Your task to perform on an android device: make emails show in primary in the gmail app Image 0: 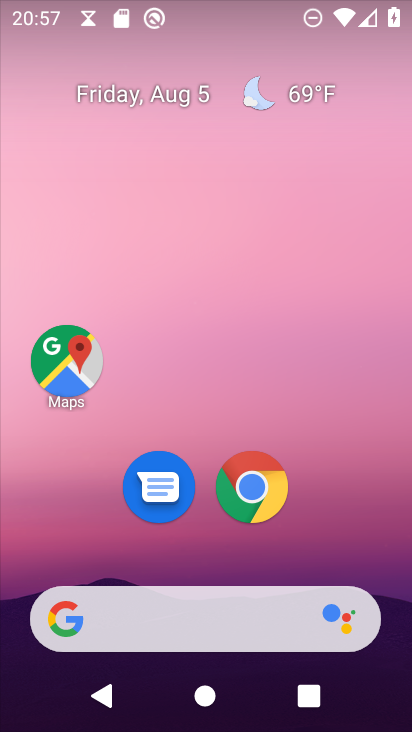
Step 0: drag from (232, 605) to (310, 117)
Your task to perform on an android device: make emails show in primary in the gmail app Image 1: 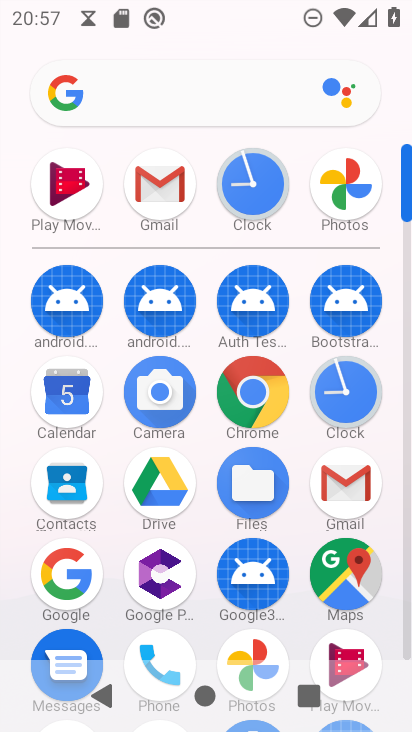
Step 1: click (156, 194)
Your task to perform on an android device: make emails show in primary in the gmail app Image 2: 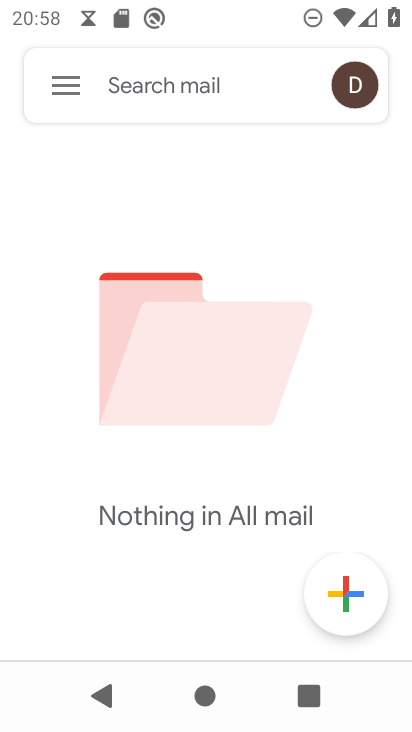
Step 2: click (63, 84)
Your task to perform on an android device: make emails show in primary in the gmail app Image 3: 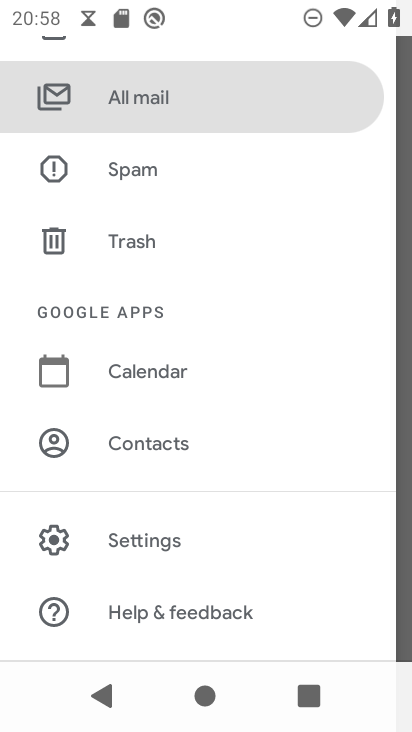
Step 3: click (150, 544)
Your task to perform on an android device: make emails show in primary in the gmail app Image 4: 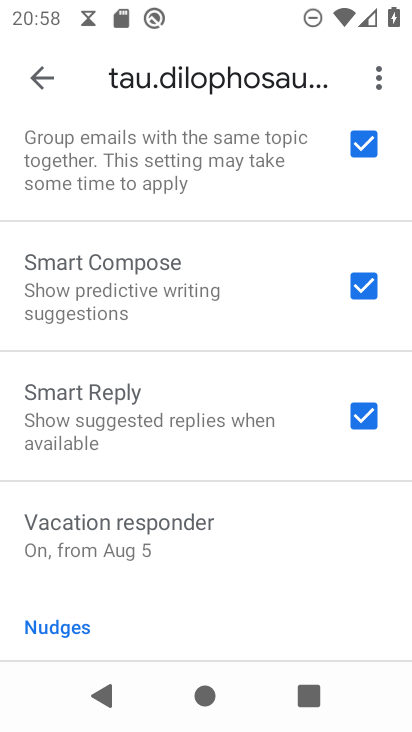
Step 4: task complete